Your task to perform on an android device: Set the phone to "Do not disturb". Image 0: 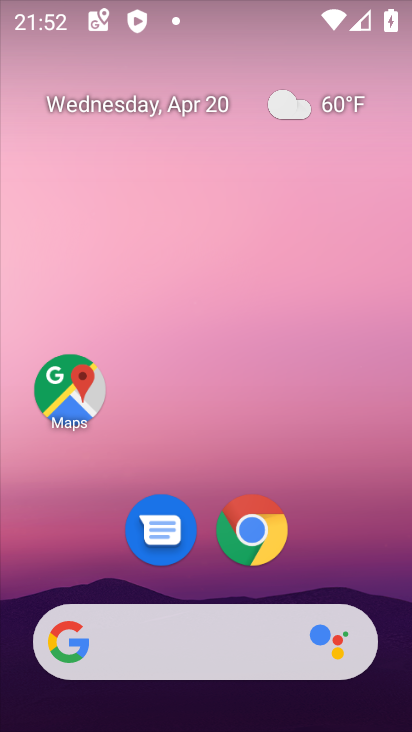
Step 0: drag from (353, 458) to (376, 136)
Your task to perform on an android device: Set the phone to "Do not disturb". Image 1: 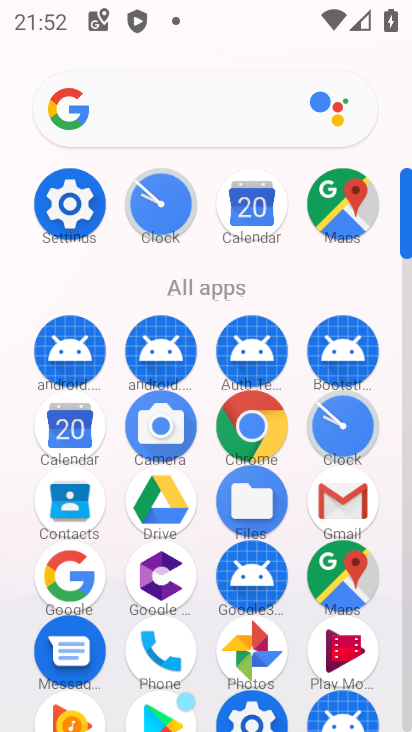
Step 1: click (70, 203)
Your task to perform on an android device: Set the phone to "Do not disturb". Image 2: 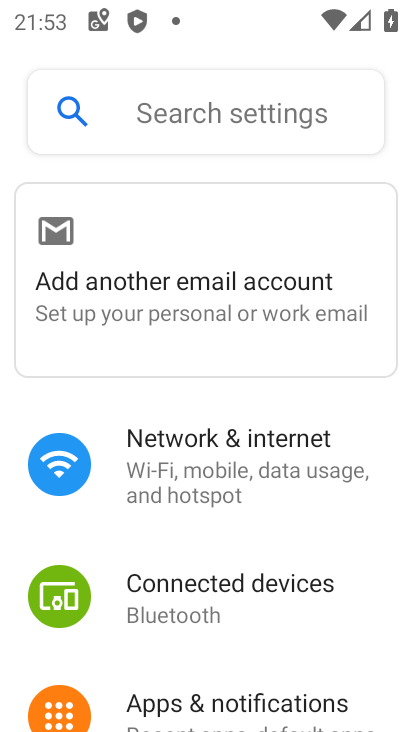
Step 2: drag from (274, 681) to (275, 392)
Your task to perform on an android device: Set the phone to "Do not disturb". Image 3: 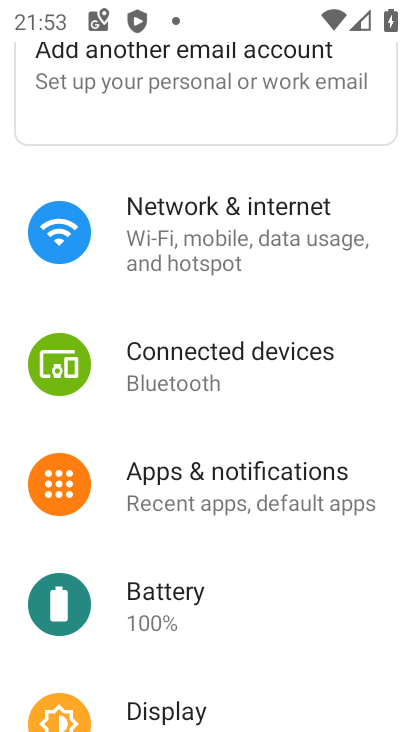
Step 3: drag from (257, 562) to (226, 211)
Your task to perform on an android device: Set the phone to "Do not disturb". Image 4: 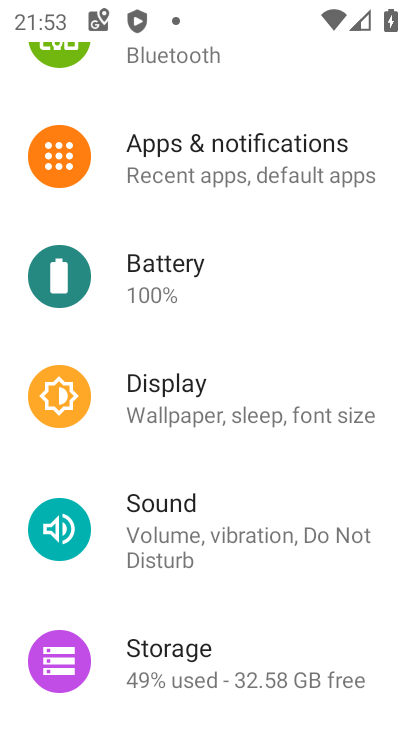
Step 4: click (250, 521)
Your task to perform on an android device: Set the phone to "Do not disturb". Image 5: 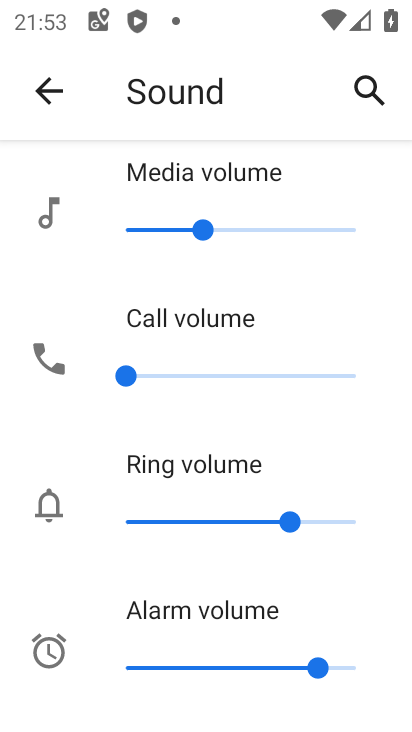
Step 5: drag from (225, 578) to (264, 183)
Your task to perform on an android device: Set the phone to "Do not disturb". Image 6: 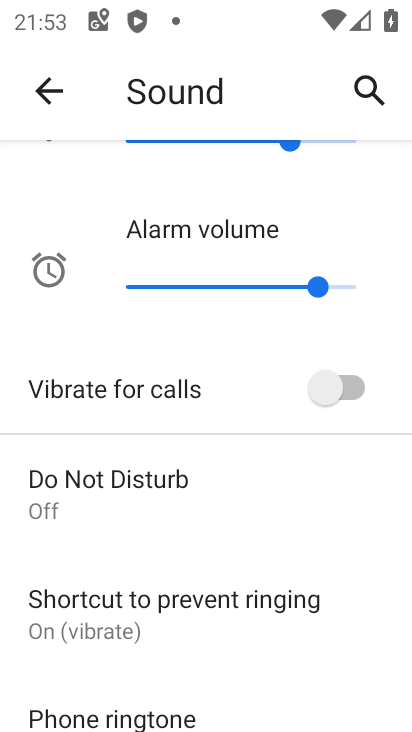
Step 6: click (202, 494)
Your task to perform on an android device: Set the phone to "Do not disturb". Image 7: 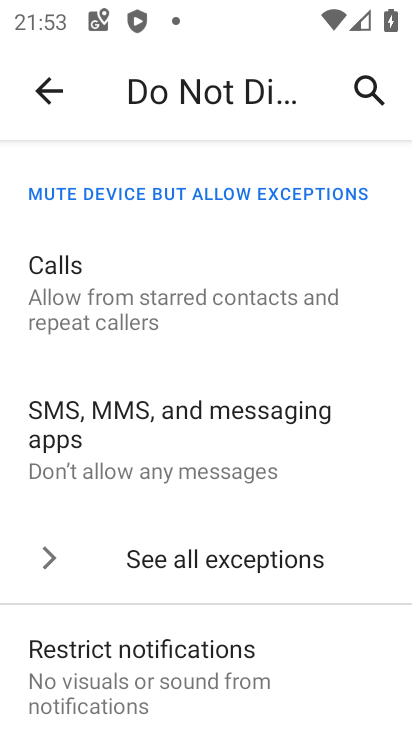
Step 7: drag from (212, 654) to (296, 153)
Your task to perform on an android device: Set the phone to "Do not disturb". Image 8: 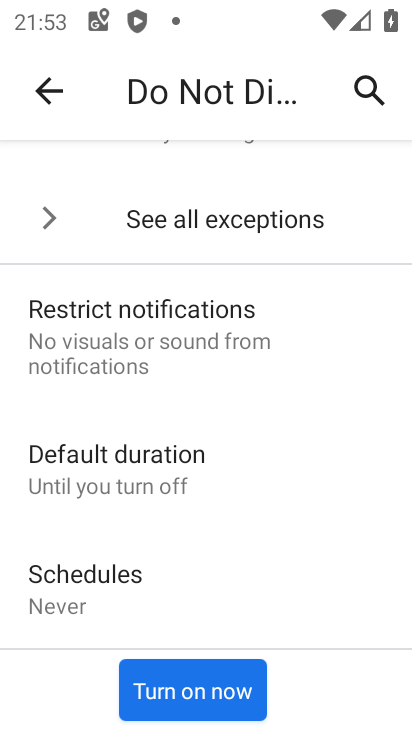
Step 8: click (223, 694)
Your task to perform on an android device: Set the phone to "Do not disturb". Image 9: 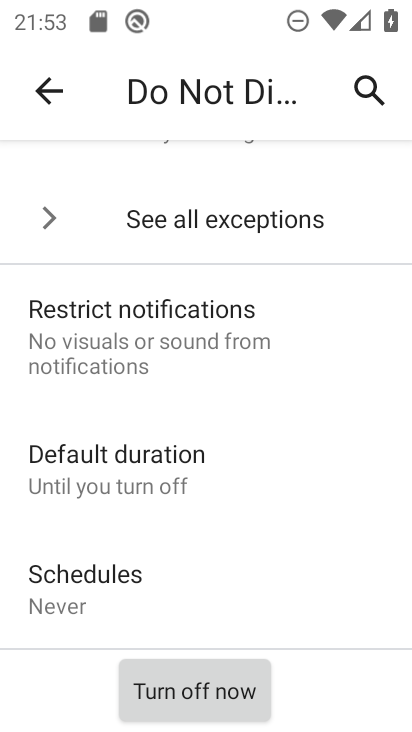
Step 9: task complete